Your task to perform on an android device: Open the stopwatch Image 0: 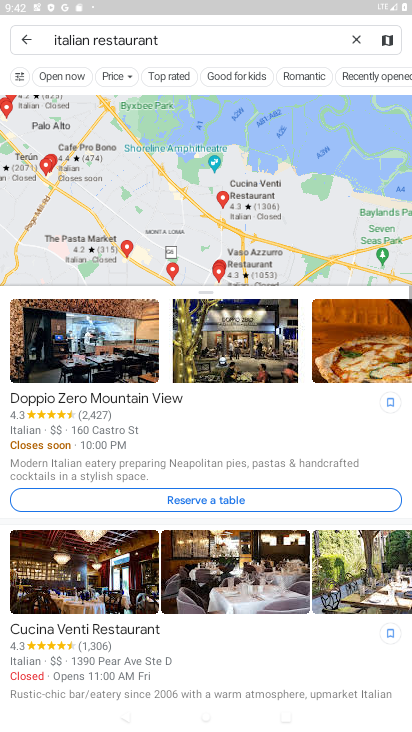
Step 0: press back button
Your task to perform on an android device: Open the stopwatch Image 1: 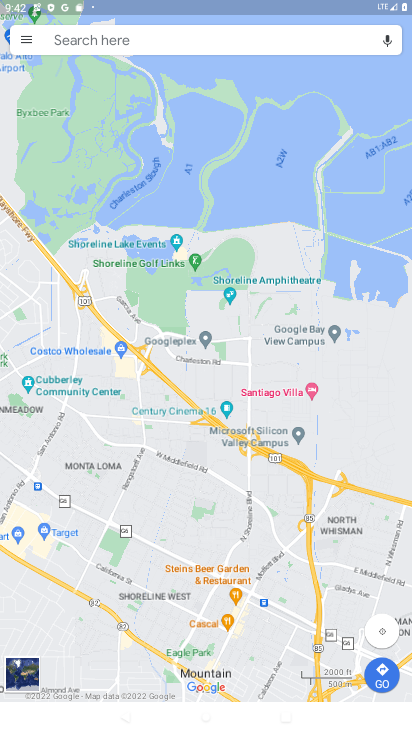
Step 1: press home button
Your task to perform on an android device: Open the stopwatch Image 2: 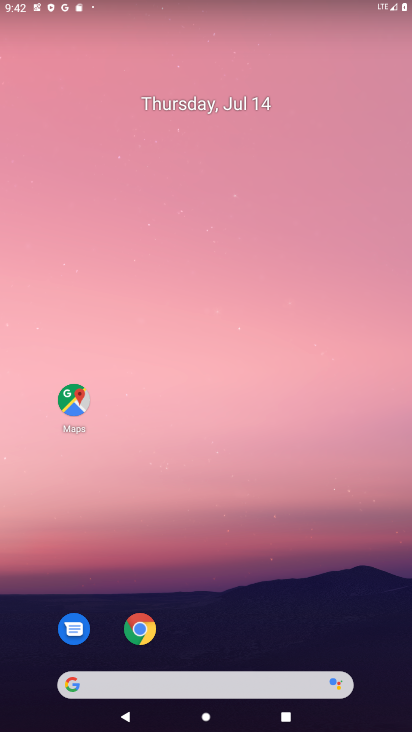
Step 2: drag from (51, 508) to (307, 42)
Your task to perform on an android device: Open the stopwatch Image 3: 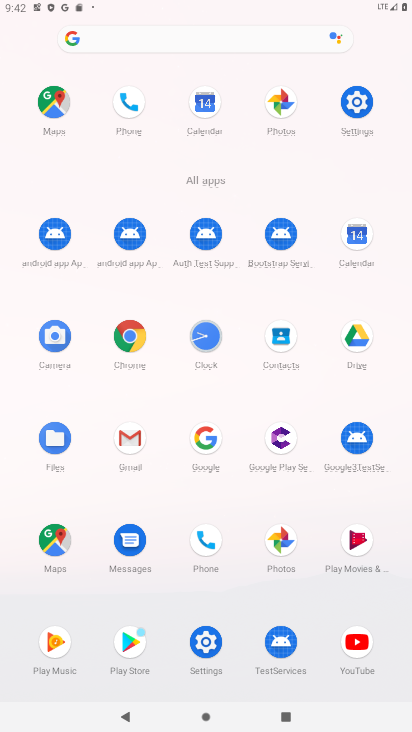
Step 3: click (214, 335)
Your task to perform on an android device: Open the stopwatch Image 4: 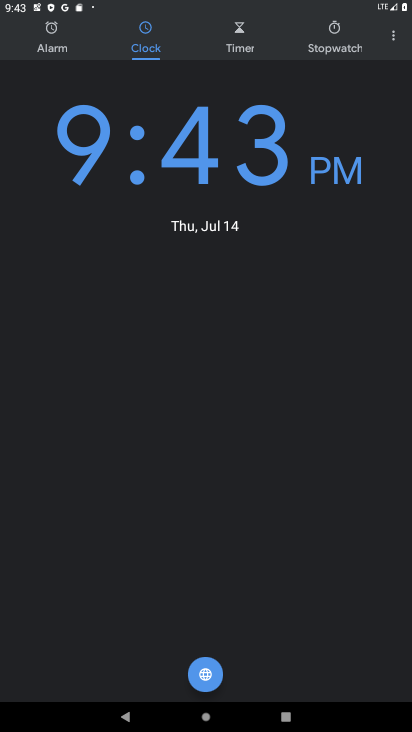
Step 4: click (331, 31)
Your task to perform on an android device: Open the stopwatch Image 5: 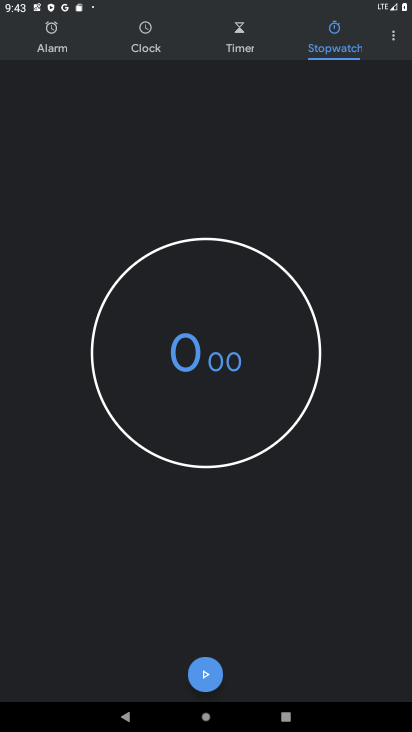
Step 5: task complete